Your task to perform on an android device: open the mobile data screen to see how much data has been used Image 0: 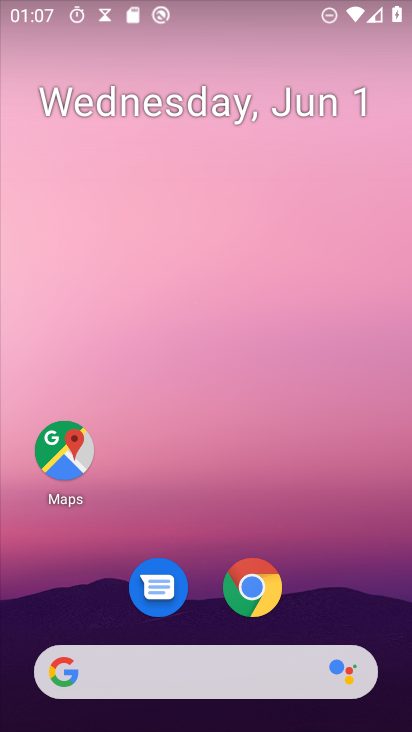
Step 0: drag from (321, 606) to (327, 2)
Your task to perform on an android device: open the mobile data screen to see how much data has been used Image 1: 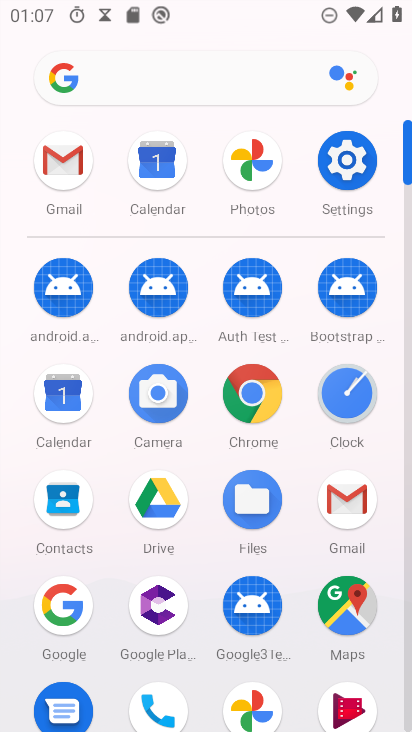
Step 1: click (342, 154)
Your task to perform on an android device: open the mobile data screen to see how much data has been used Image 2: 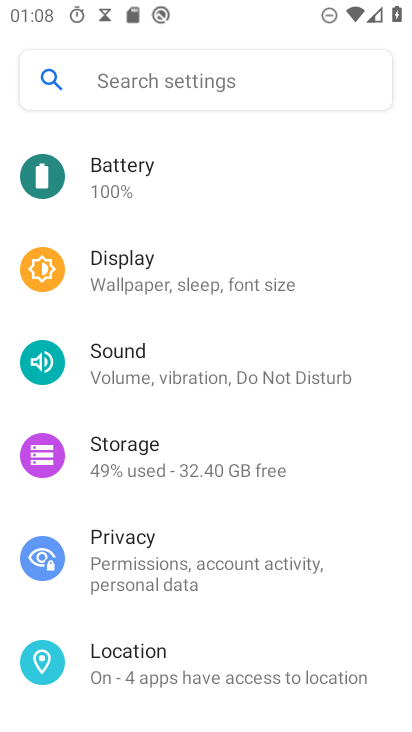
Step 2: drag from (273, 200) to (383, 702)
Your task to perform on an android device: open the mobile data screen to see how much data has been used Image 3: 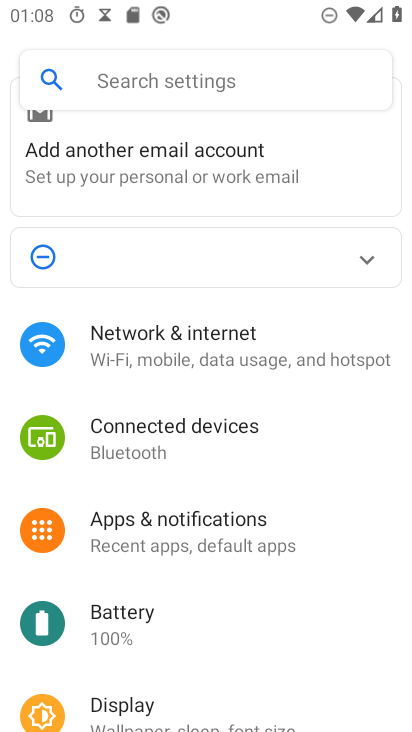
Step 3: click (225, 329)
Your task to perform on an android device: open the mobile data screen to see how much data has been used Image 4: 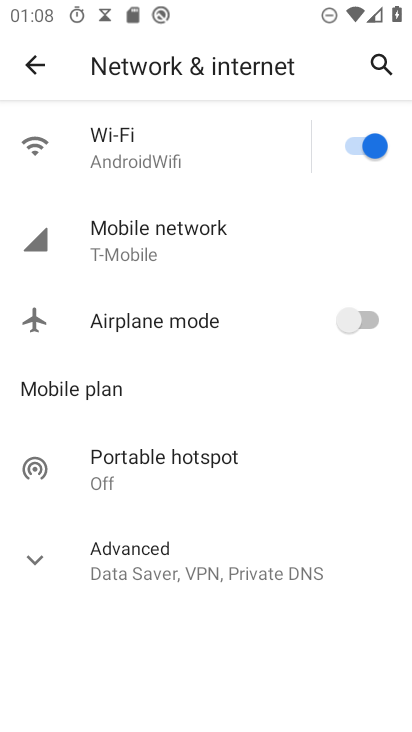
Step 4: click (161, 241)
Your task to perform on an android device: open the mobile data screen to see how much data has been used Image 5: 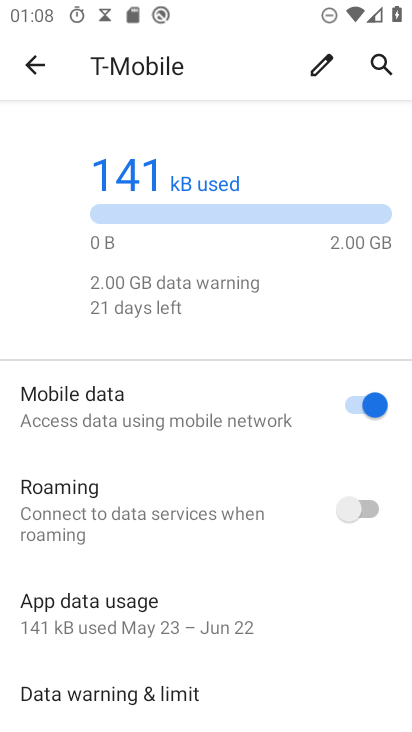
Step 5: click (171, 597)
Your task to perform on an android device: open the mobile data screen to see how much data has been used Image 6: 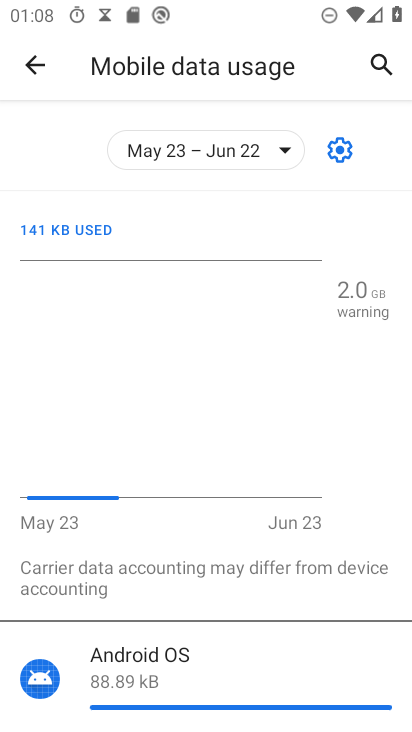
Step 6: task complete